Your task to perform on an android device: Open Google Chrome and open the bookmarks view Image 0: 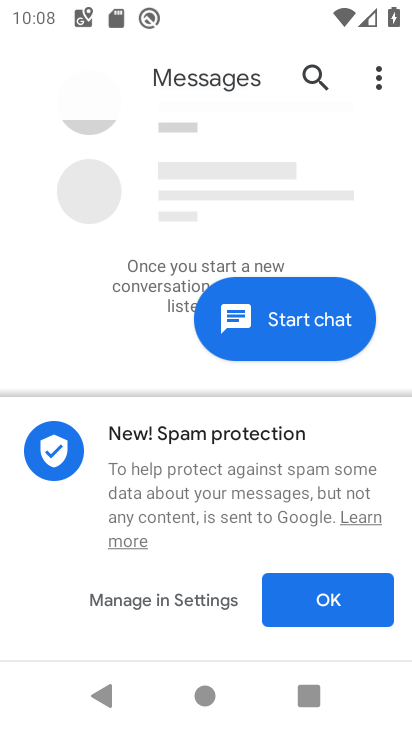
Step 0: press back button
Your task to perform on an android device: Open Google Chrome and open the bookmarks view Image 1: 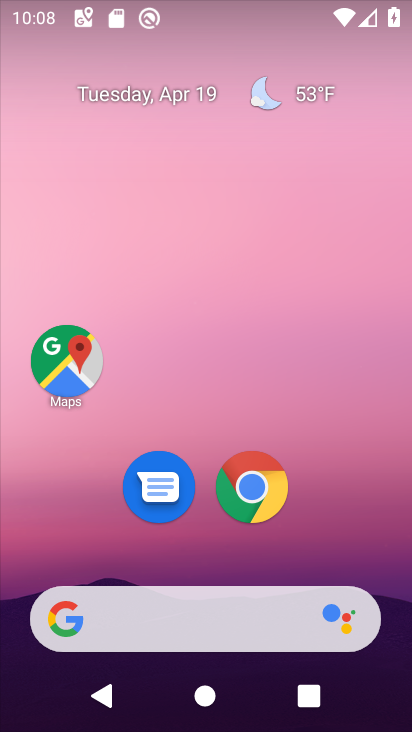
Step 1: drag from (363, 571) to (284, 15)
Your task to perform on an android device: Open Google Chrome and open the bookmarks view Image 2: 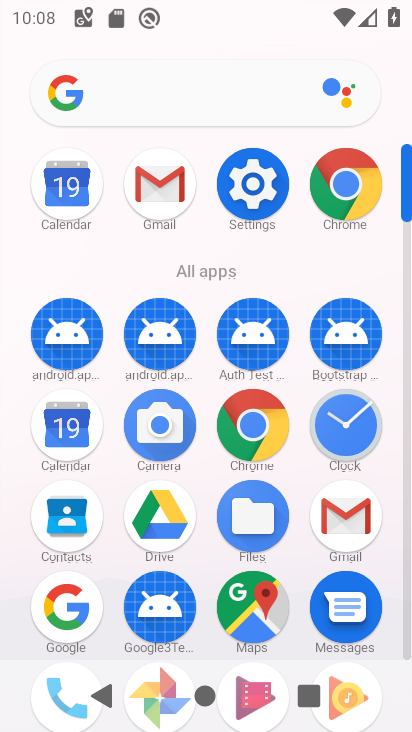
Step 2: click (346, 181)
Your task to perform on an android device: Open Google Chrome and open the bookmarks view Image 3: 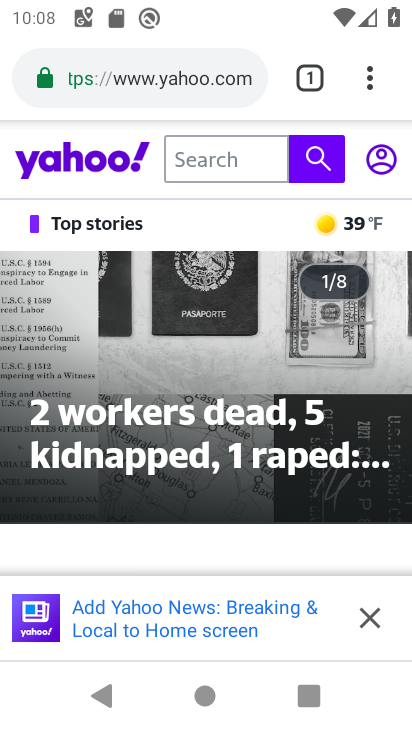
Step 3: task complete